Your task to perform on an android device: all mails in gmail Image 0: 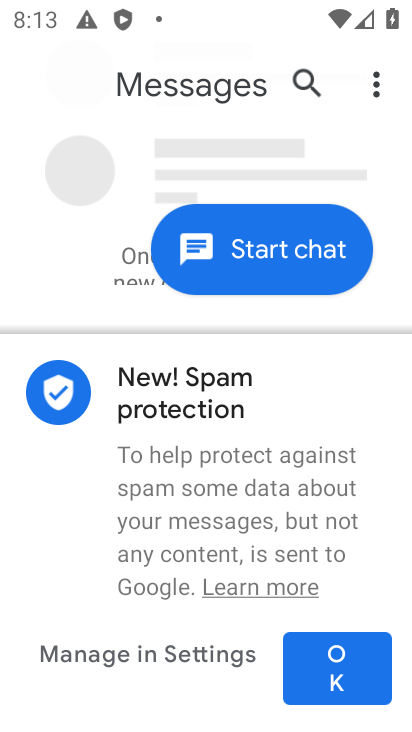
Step 0: press home button
Your task to perform on an android device: all mails in gmail Image 1: 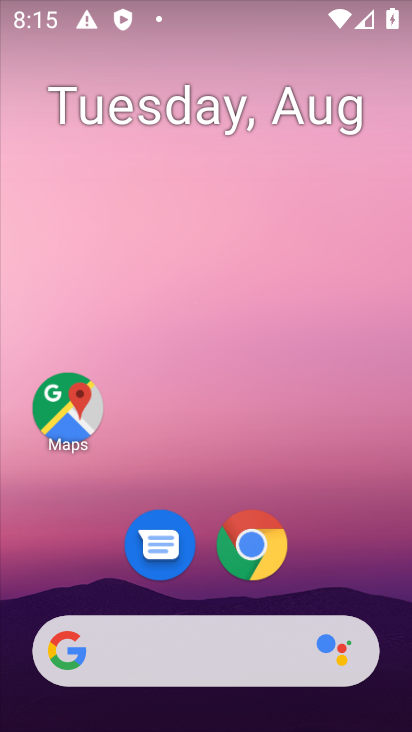
Step 1: drag from (41, 389) to (132, 73)
Your task to perform on an android device: all mails in gmail Image 2: 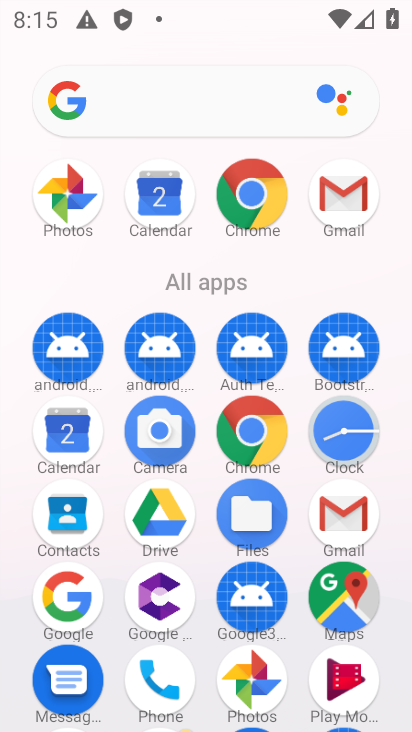
Step 2: click (322, 202)
Your task to perform on an android device: all mails in gmail Image 3: 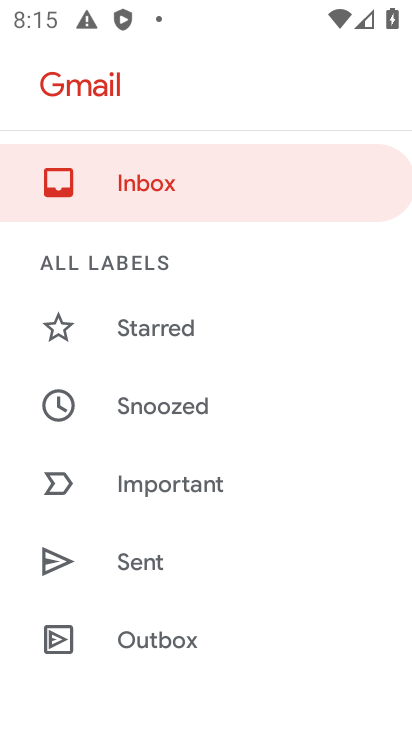
Step 3: drag from (0, 649) to (191, 141)
Your task to perform on an android device: all mails in gmail Image 4: 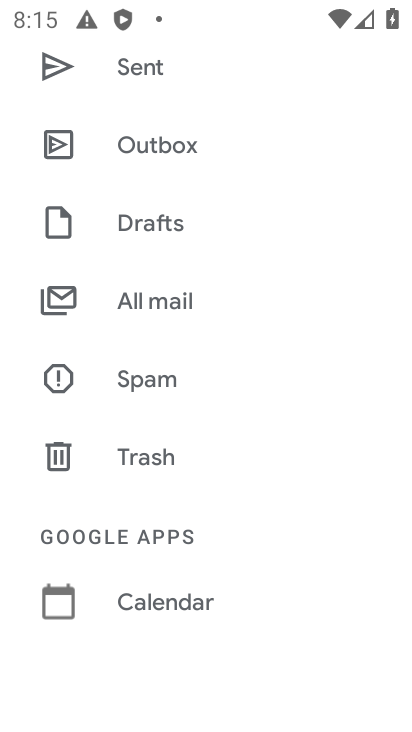
Step 4: click (192, 308)
Your task to perform on an android device: all mails in gmail Image 5: 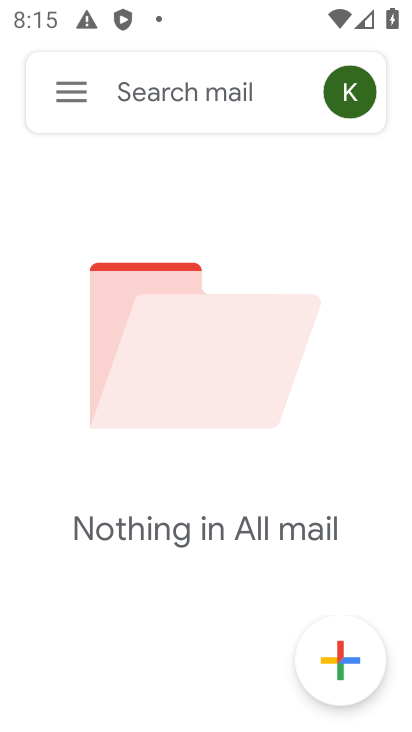
Step 5: task complete